Your task to perform on an android device: set an alarm Image 0: 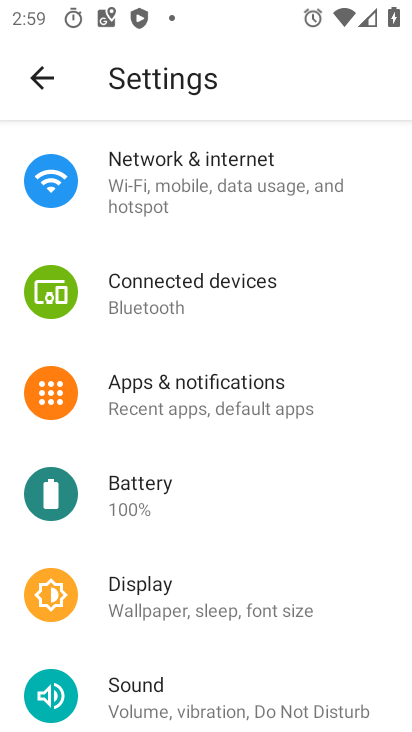
Step 0: press home button
Your task to perform on an android device: set an alarm Image 1: 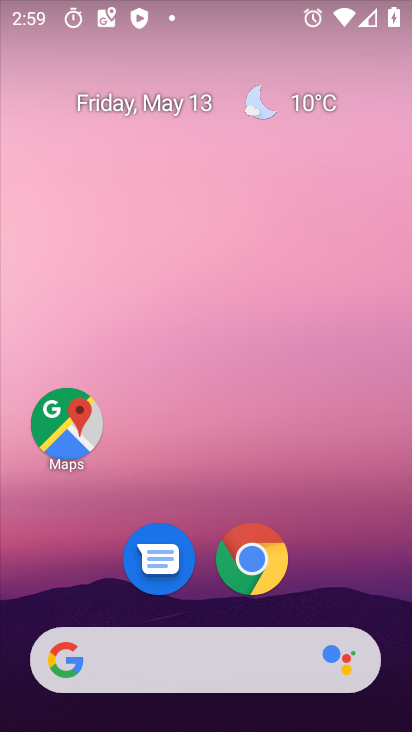
Step 1: drag from (203, 597) to (227, 199)
Your task to perform on an android device: set an alarm Image 2: 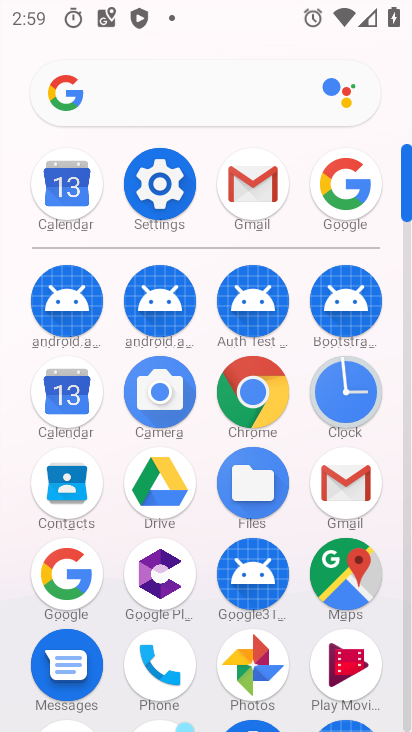
Step 2: click (331, 393)
Your task to perform on an android device: set an alarm Image 3: 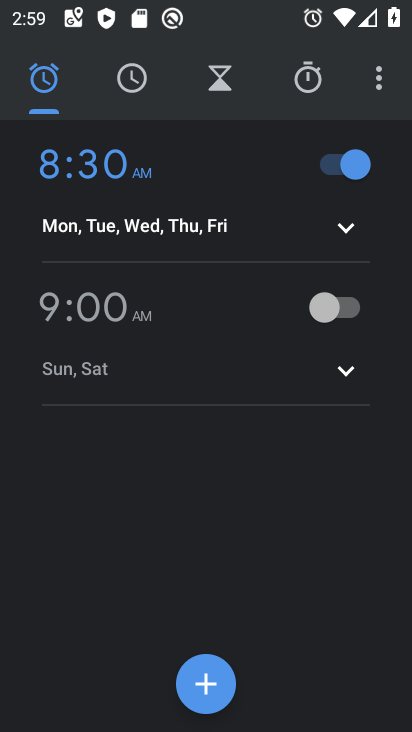
Step 3: click (340, 307)
Your task to perform on an android device: set an alarm Image 4: 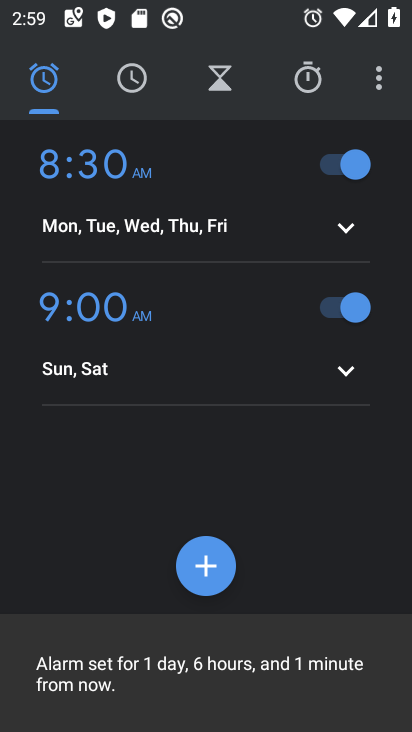
Step 4: task complete